Your task to perform on an android device: Open maps Image 0: 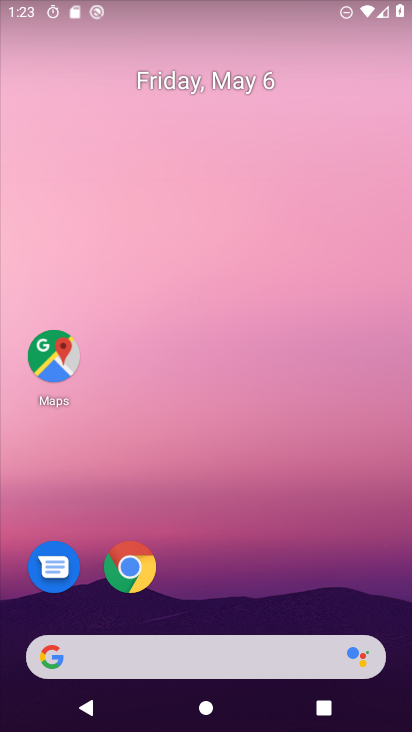
Step 0: click (52, 367)
Your task to perform on an android device: Open maps Image 1: 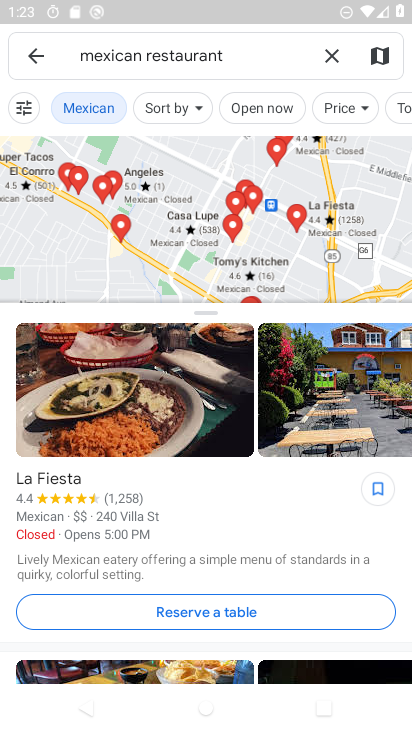
Step 1: task complete